Your task to perform on an android device: Open Youtube and go to the subscriptions tab Image 0: 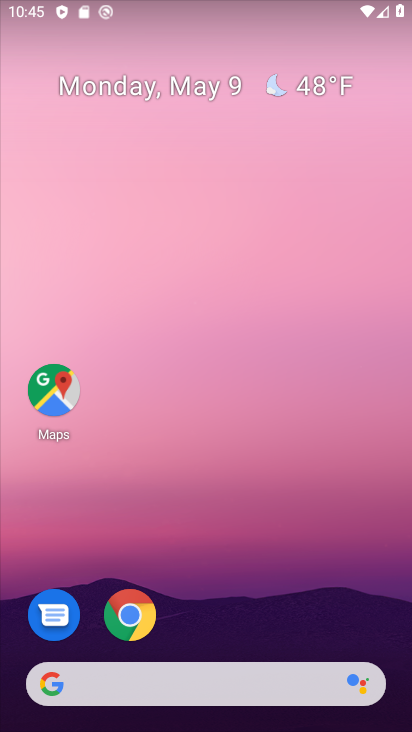
Step 0: drag from (215, 616) to (290, 134)
Your task to perform on an android device: Open Youtube and go to the subscriptions tab Image 1: 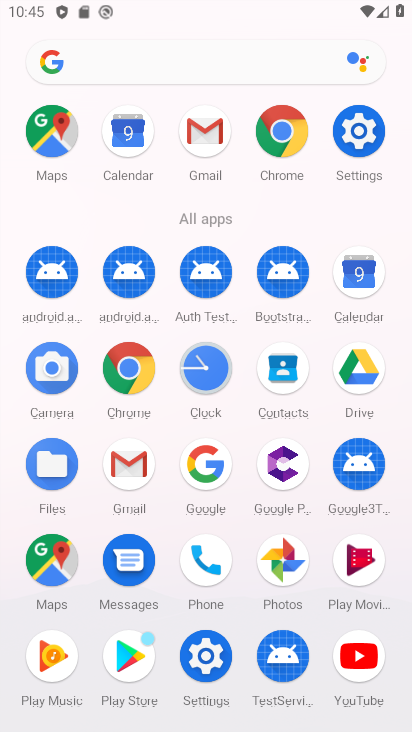
Step 1: click (352, 652)
Your task to perform on an android device: Open Youtube and go to the subscriptions tab Image 2: 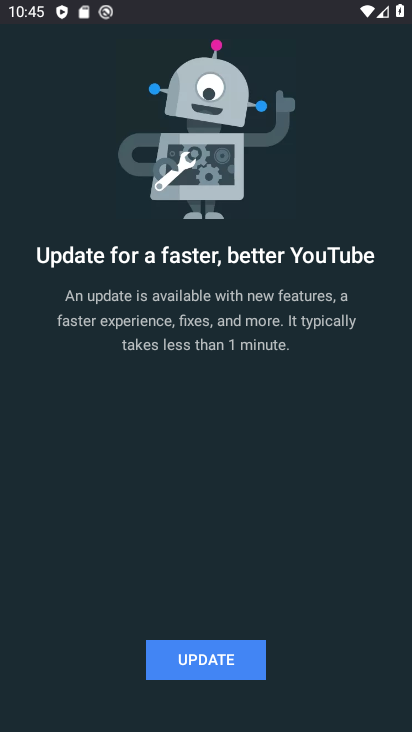
Step 2: click (207, 663)
Your task to perform on an android device: Open Youtube and go to the subscriptions tab Image 3: 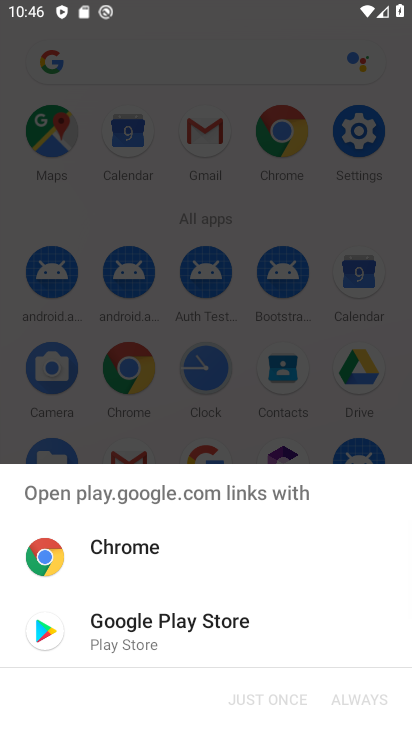
Step 3: click (366, 622)
Your task to perform on an android device: Open Youtube and go to the subscriptions tab Image 4: 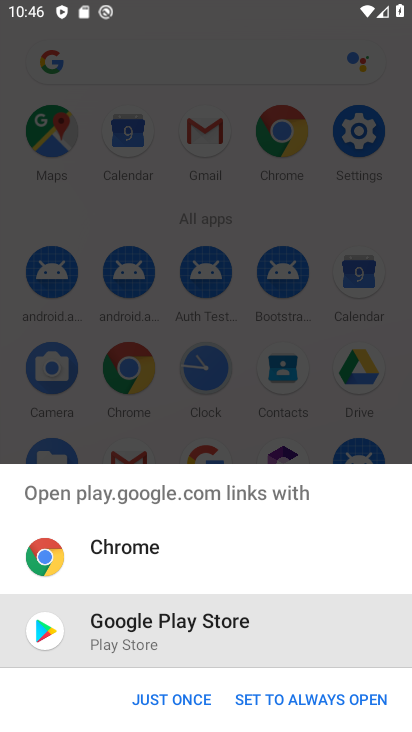
Step 4: click (169, 700)
Your task to perform on an android device: Open Youtube and go to the subscriptions tab Image 5: 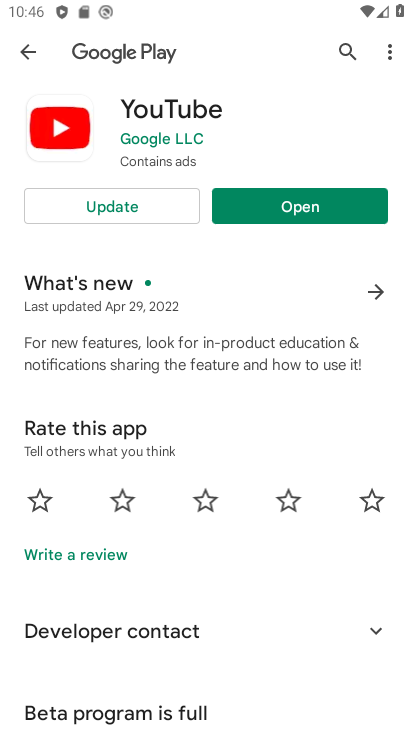
Step 5: click (160, 212)
Your task to perform on an android device: Open Youtube and go to the subscriptions tab Image 6: 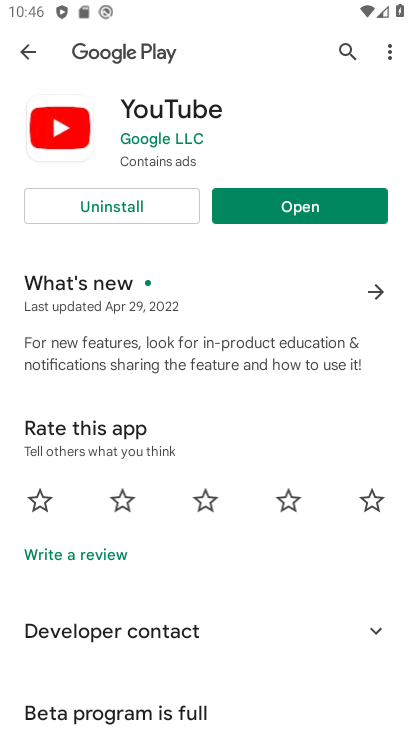
Step 6: click (279, 212)
Your task to perform on an android device: Open Youtube and go to the subscriptions tab Image 7: 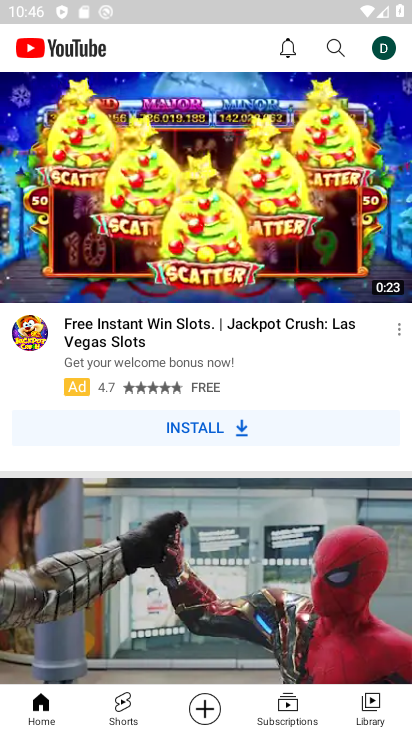
Step 7: click (296, 706)
Your task to perform on an android device: Open Youtube and go to the subscriptions tab Image 8: 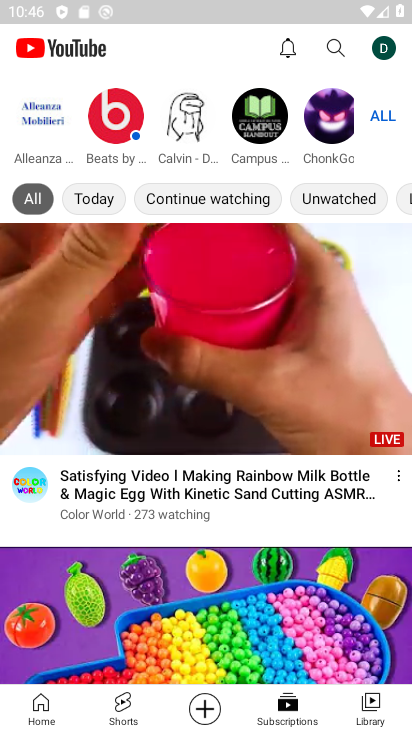
Step 8: task complete